Your task to perform on an android device: turn pop-ups off in chrome Image 0: 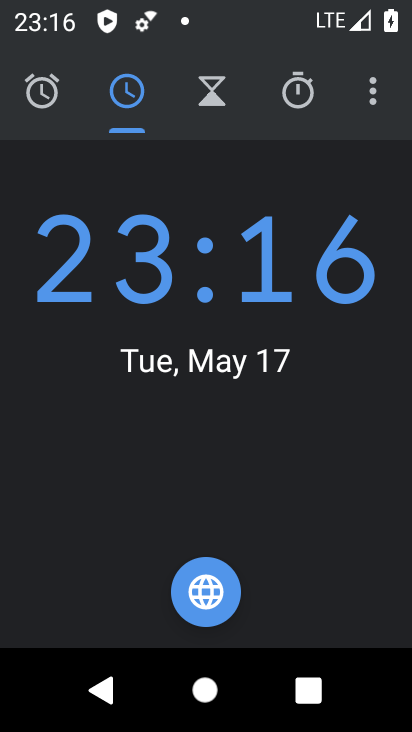
Step 0: press home button
Your task to perform on an android device: turn pop-ups off in chrome Image 1: 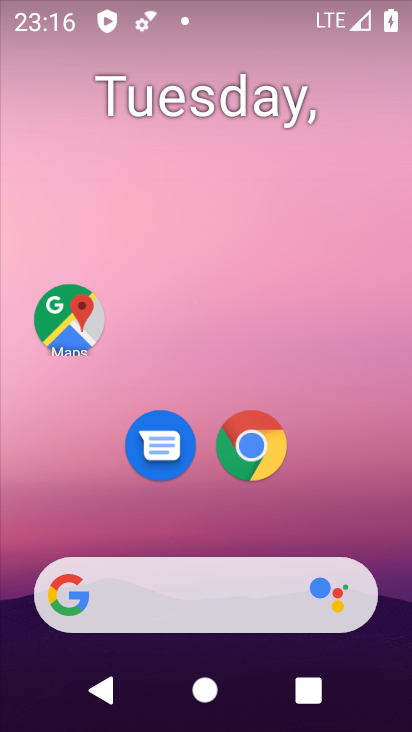
Step 1: click (249, 434)
Your task to perform on an android device: turn pop-ups off in chrome Image 2: 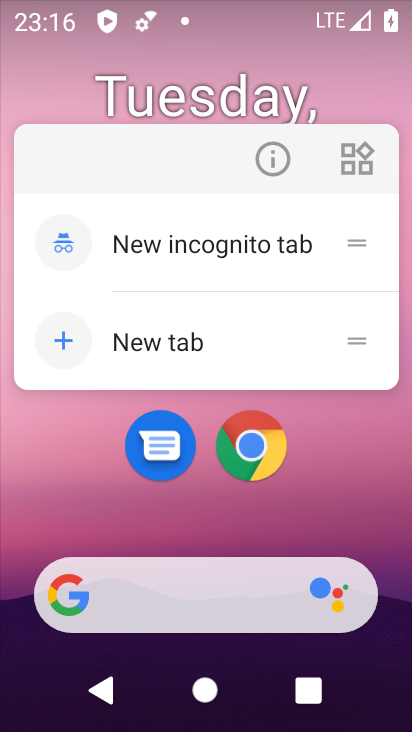
Step 2: click (252, 430)
Your task to perform on an android device: turn pop-ups off in chrome Image 3: 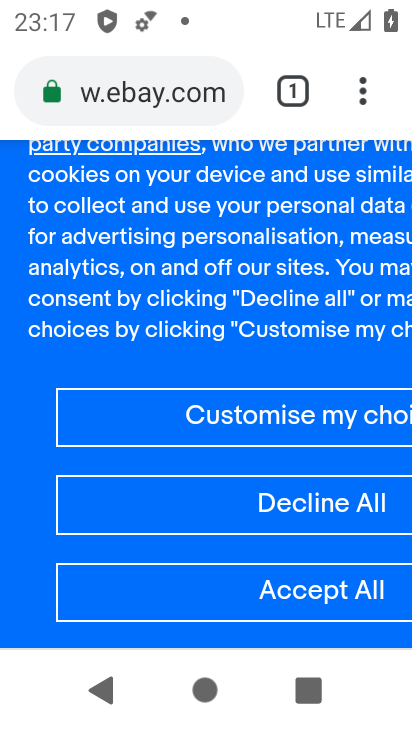
Step 3: click (362, 80)
Your task to perform on an android device: turn pop-ups off in chrome Image 4: 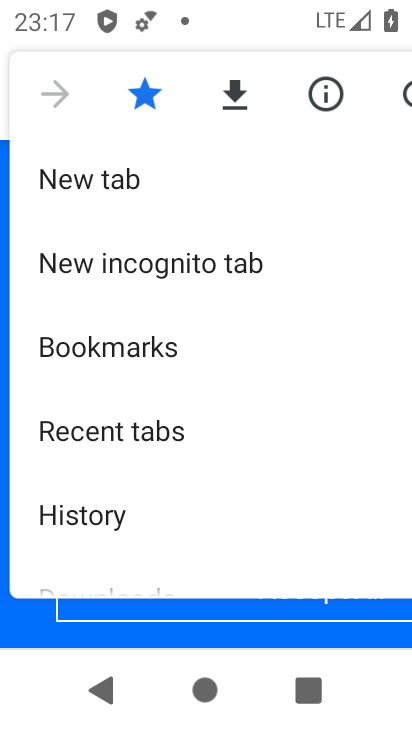
Step 4: drag from (177, 548) to (316, 187)
Your task to perform on an android device: turn pop-ups off in chrome Image 5: 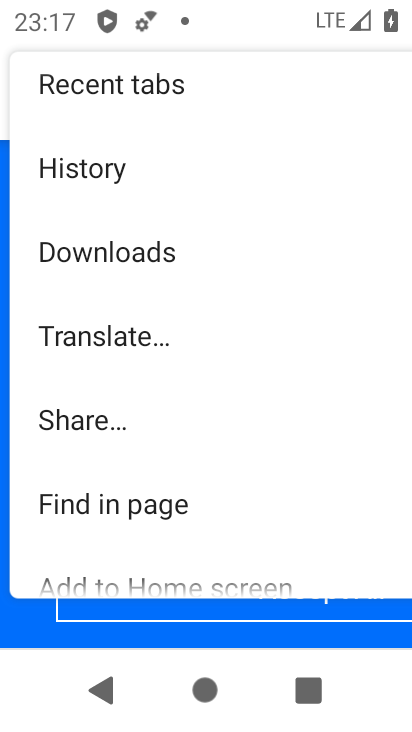
Step 5: drag from (130, 515) to (287, 191)
Your task to perform on an android device: turn pop-ups off in chrome Image 6: 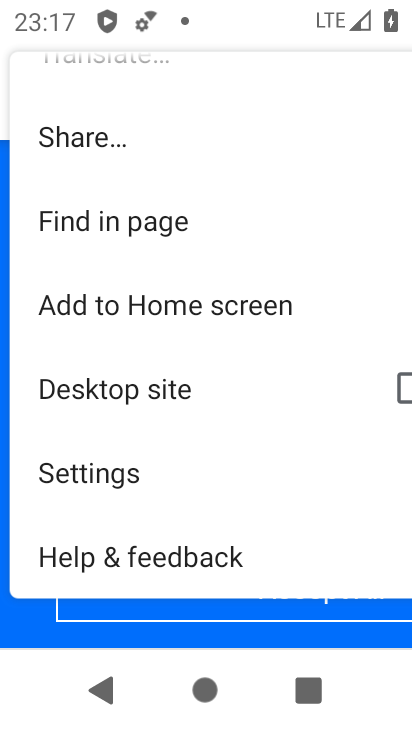
Step 6: click (115, 471)
Your task to perform on an android device: turn pop-ups off in chrome Image 7: 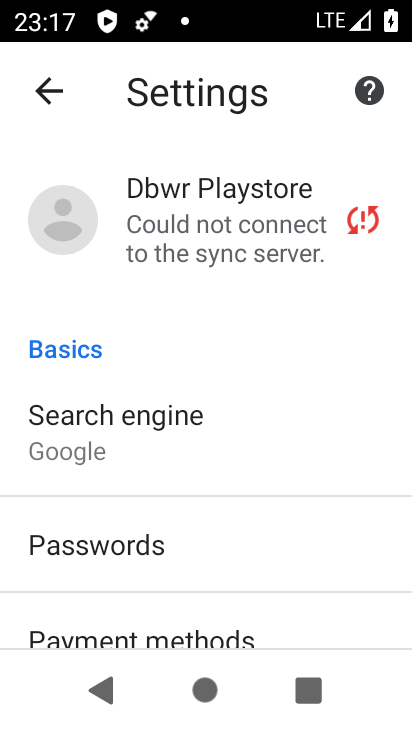
Step 7: drag from (118, 556) to (298, 253)
Your task to perform on an android device: turn pop-ups off in chrome Image 8: 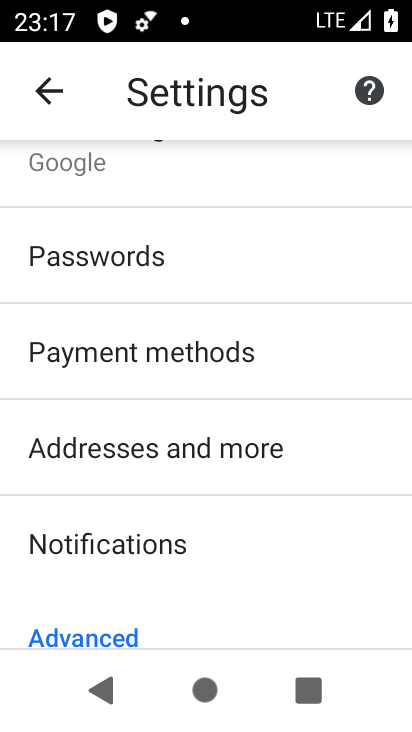
Step 8: drag from (136, 586) to (347, 340)
Your task to perform on an android device: turn pop-ups off in chrome Image 9: 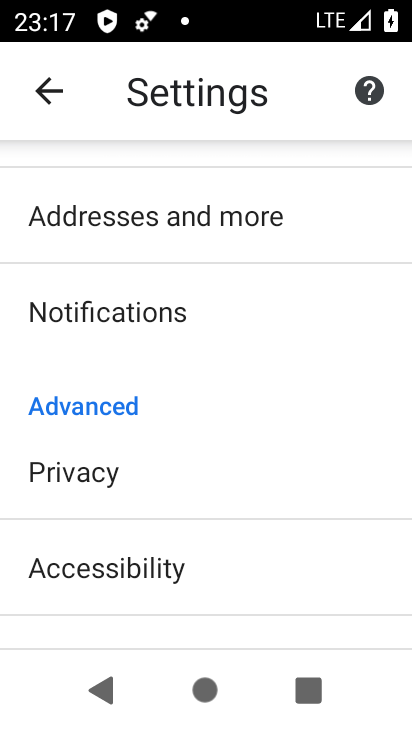
Step 9: drag from (203, 604) to (333, 336)
Your task to perform on an android device: turn pop-ups off in chrome Image 10: 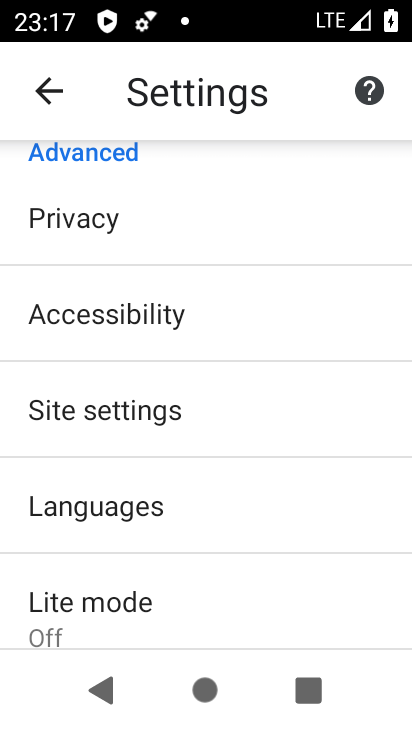
Step 10: click (329, 383)
Your task to perform on an android device: turn pop-ups off in chrome Image 11: 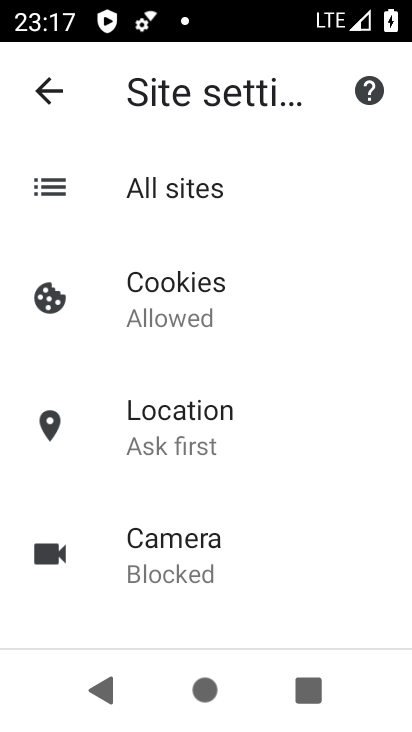
Step 11: drag from (245, 561) to (345, 288)
Your task to perform on an android device: turn pop-ups off in chrome Image 12: 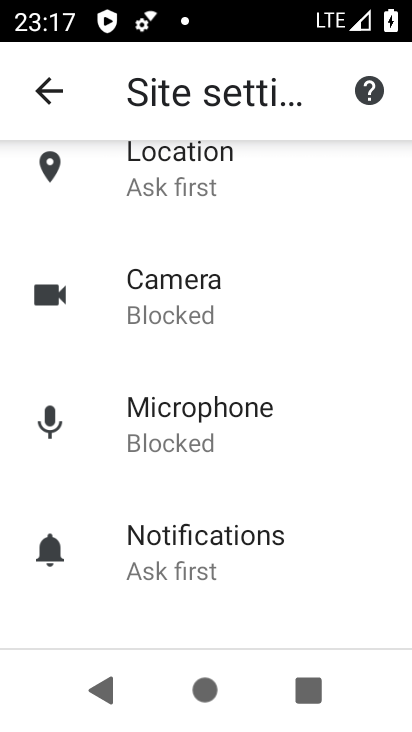
Step 12: drag from (243, 579) to (319, 241)
Your task to perform on an android device: turn pop-ups off in chrome Image 13: 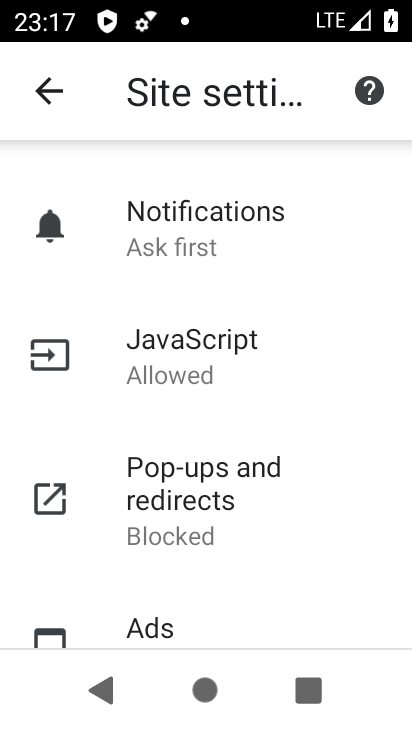
Step 13: click (234, 486)
Your task to perform on an android device: turn pop-ups off in chrome Image 14: 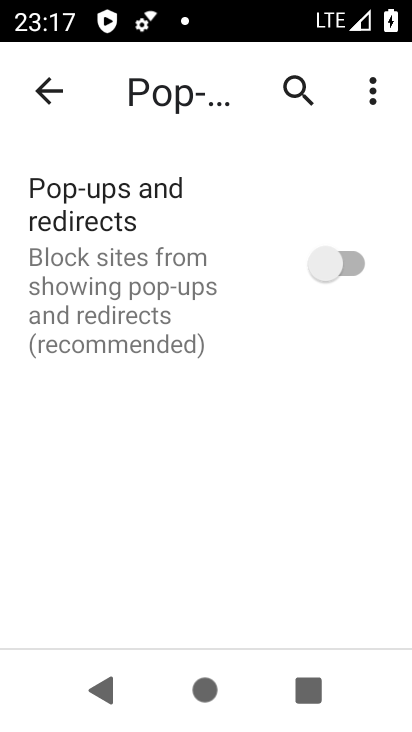
Step 14: task complete